Your task to perform on an android device: delete location history Image 0: 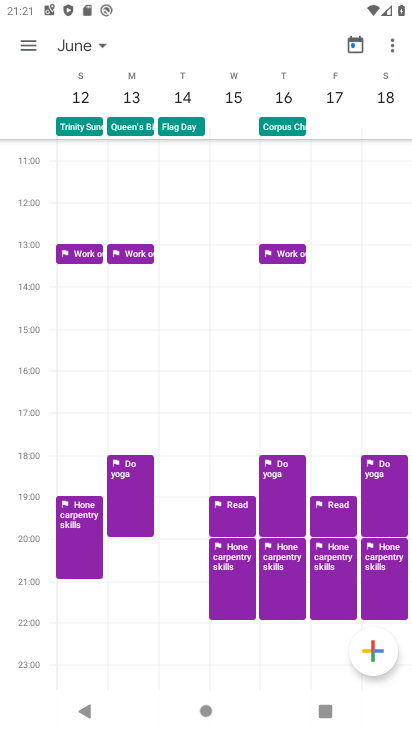
Step 0: press home button
Your task to perform on an android device: delete location history Image 1: 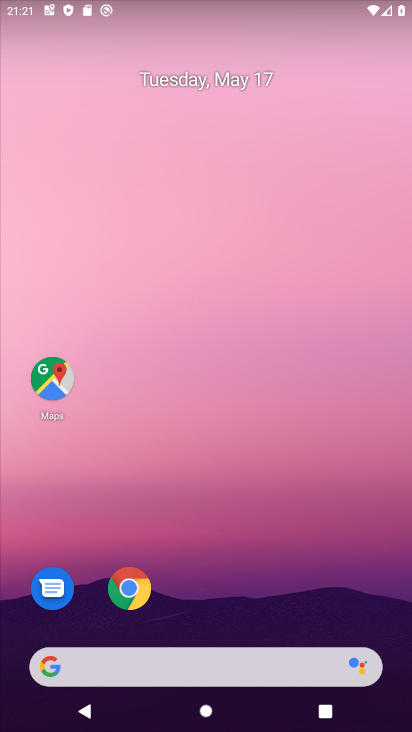
Step 1: drag from (199, 628) to (344, 0)
Your task to perform on an android device: delete location history Image 2: 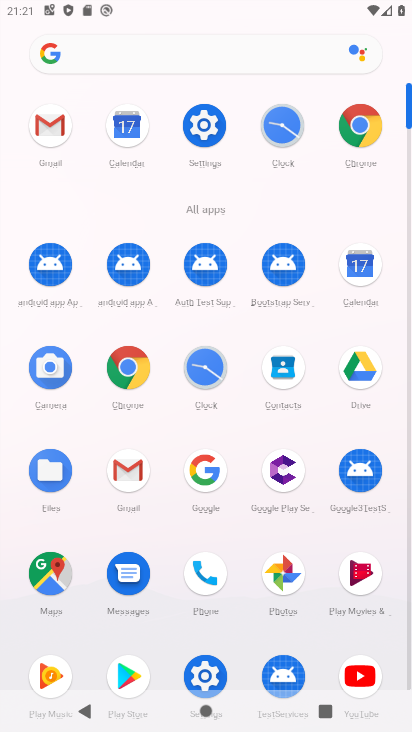
Step 2: click (203, 670)
Your task to perform on an android device: delete location history Image 3: 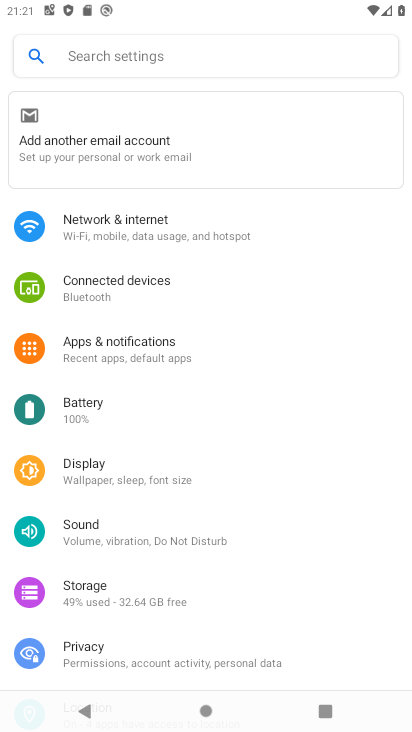
Step 3: drag from (93, 665) to (72, 259)
Your task to perform on an android device: delete location history Image 4: 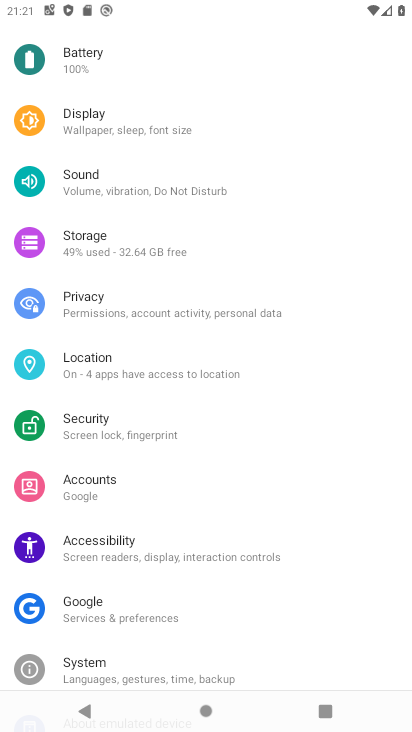
Step 4: press home button
Your task to perform on an android device: delete location history Image 5: 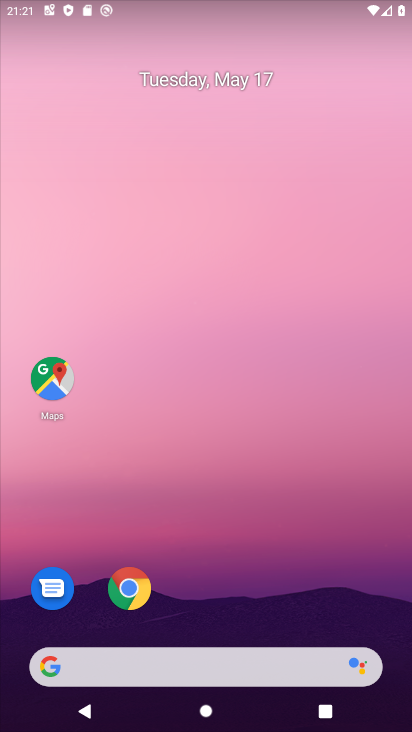
Step 5: click (35, 387)
Your task to perform on an android device: delete location history Image 6: 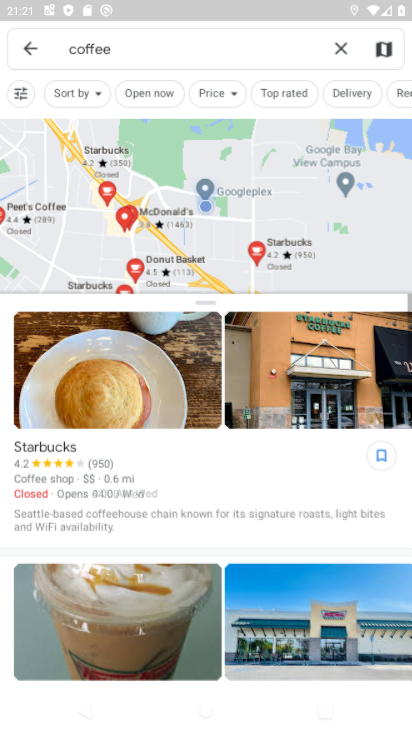
Step 6: click (18, 42)
Your task to perform on an android device: delete location history Image 7: 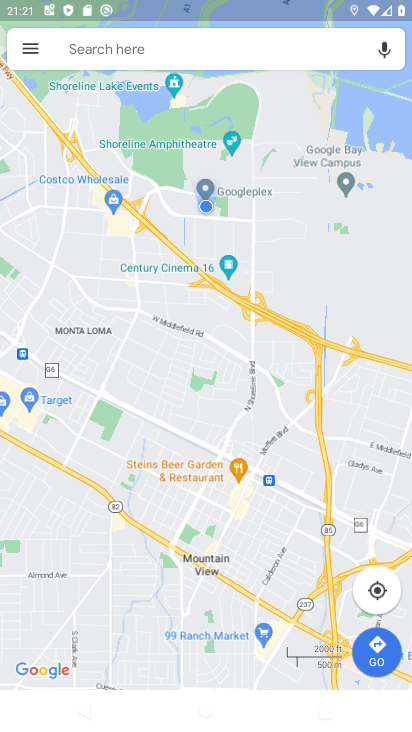
Step 7: click (31, 40)
Your task to perform on an android device: delete location history Image 8: 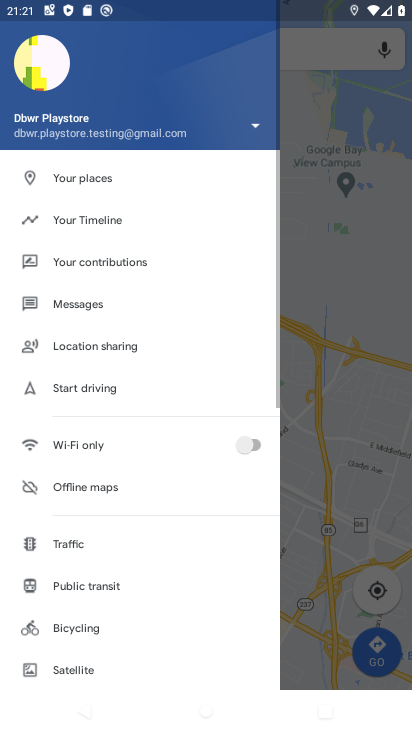
Step 8: drag from (125, 521) to (112, 148)
Your task to perform on an android device: delete location history Image 9: 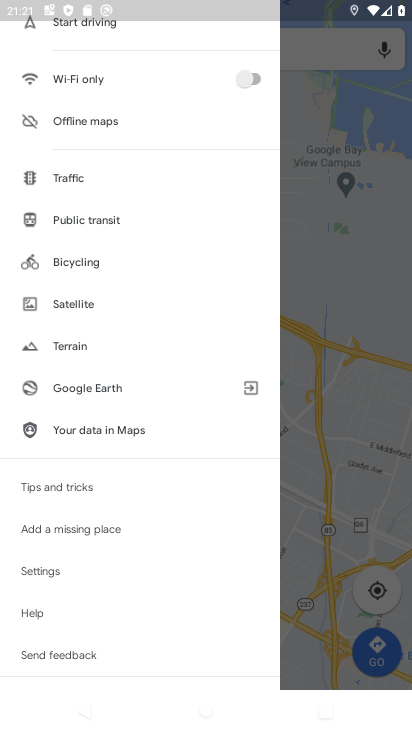
Step 9: click (50, 570)
Your task to perform on an android device: delete location history Image 10: 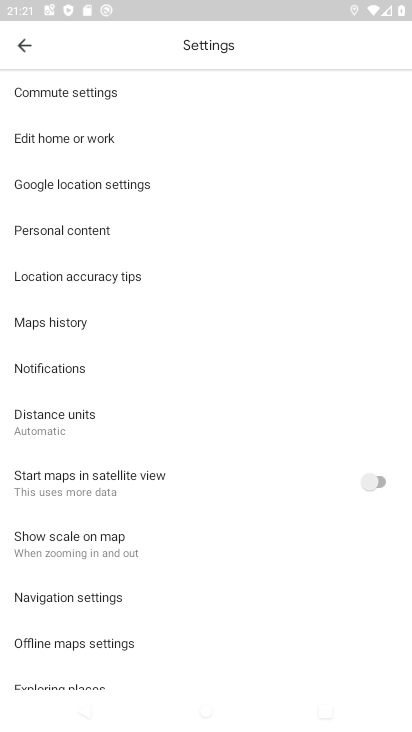
Step 10: click (35, 39)
Your task to perform on an android device: delete location history Image 11: 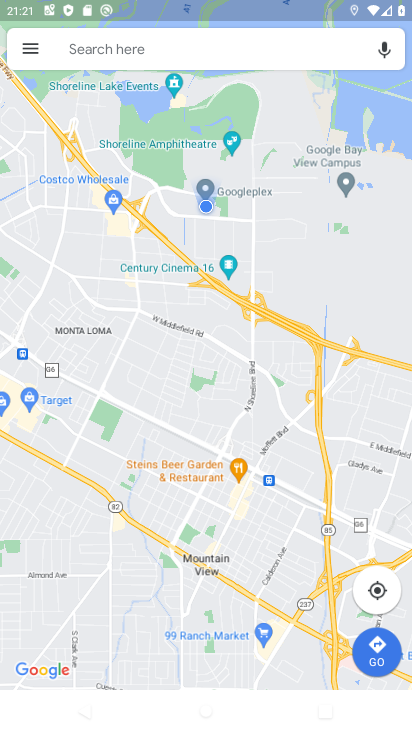
Step 11: click (29, 41)
Your task to perform on an android device: delete location history Image 12: 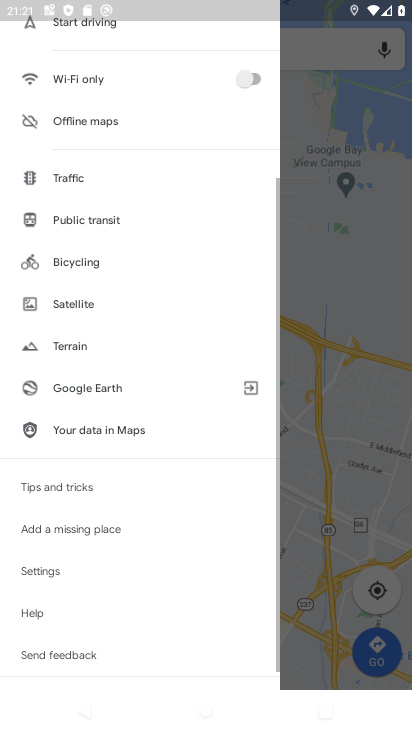
Step 12: drag from (75, 131) to (75, 670)
Your task to perform on an android device: delete location history Image 13: 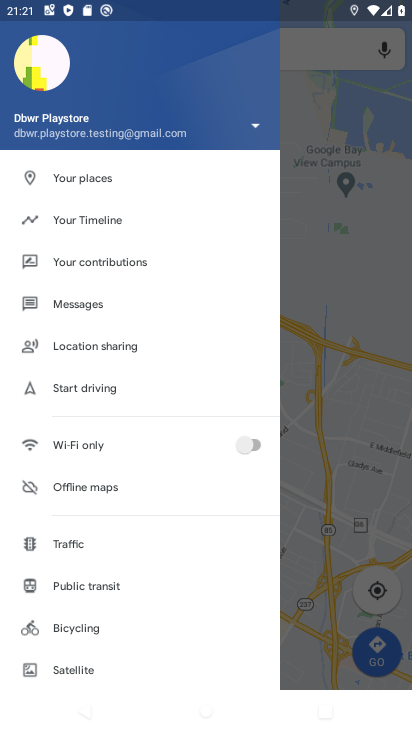
Step 13: click (47, 224)
Your task to perform on an android device: delete location history Image 14: 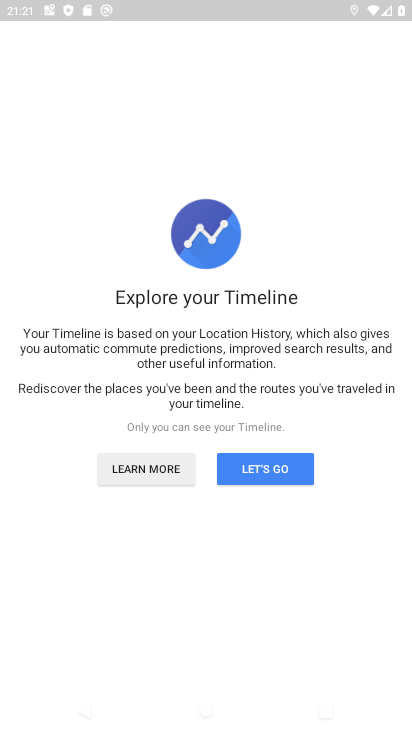
Step 14: click (247, 468)
Your task to perform on an android device: delete location history Image 15: 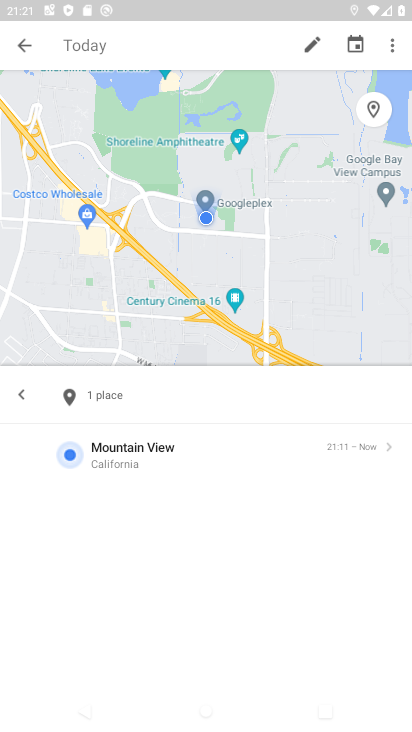
Step 15: click (391, 47)
Your task to perform on an android device: delete location history Image 16: 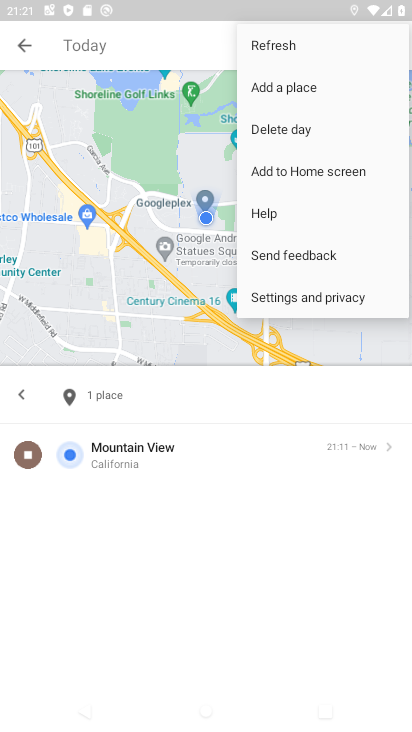
Step 16: click (352, 304)
Your task to perform on an android device: delete location history Image 17: 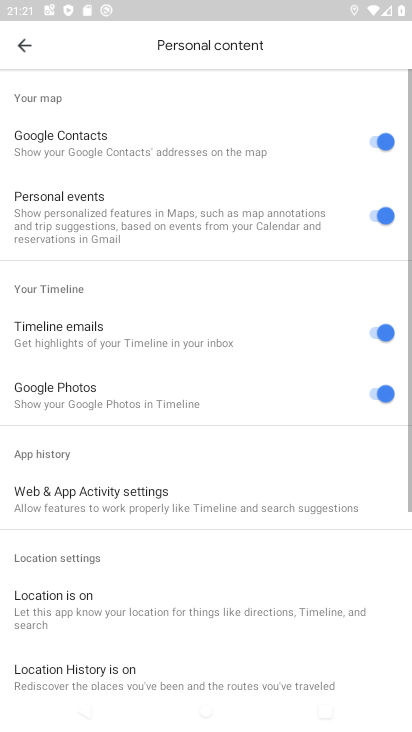
Step 17: drag from (82, 587) to (2, 104)
Your task to perform on an android device: delete location history Image 18: 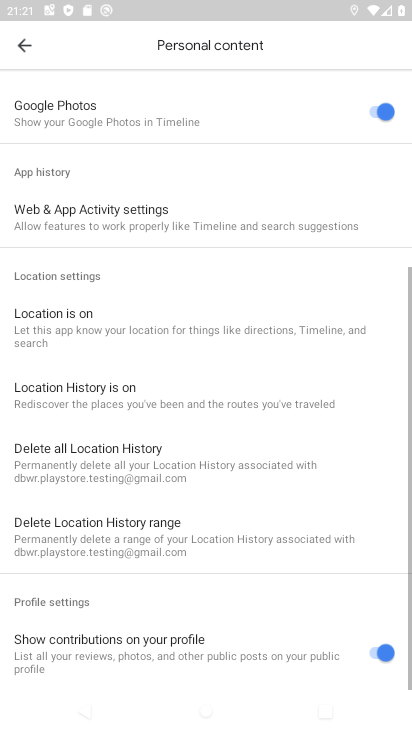
Step 18: click (167, 447)
Your task to perform on an android device: delete location history Image 19: 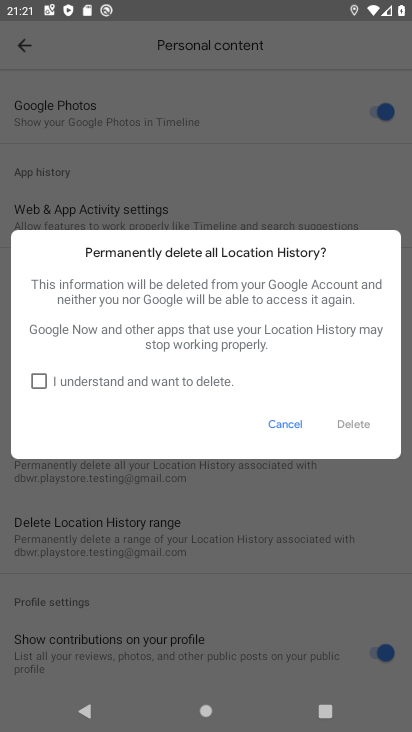
Step 19: click (36, 386)
Your task to perform on an android device: delete location history Image 20: 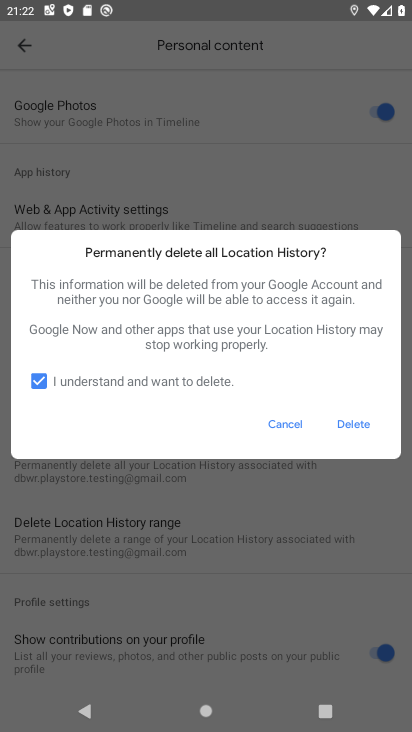
Step 20: click (360, 428)
Your task to perform on an android device: delete location history Image 21: 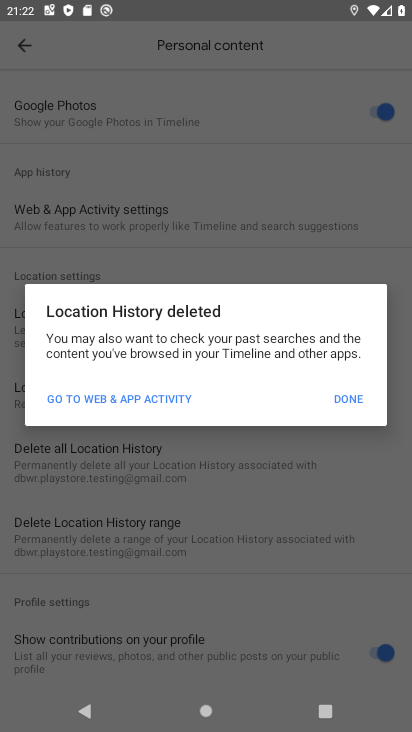
Step 21: click (350, 397)
Your task to perform on an android device: delete location history Image 22: 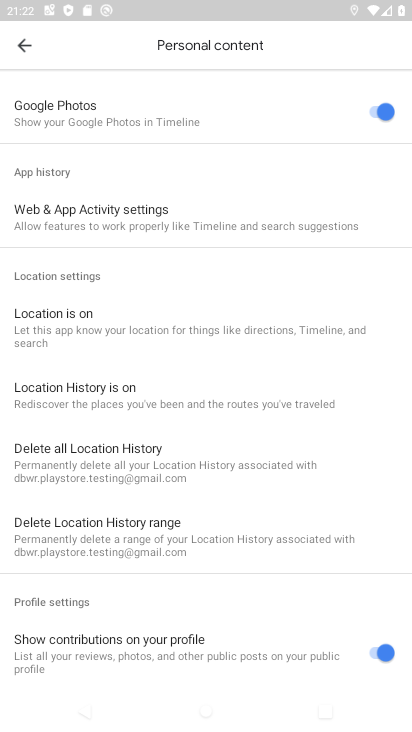
Step 22: task complete